Your task to perform on an android device: Open the web browser Image 0: 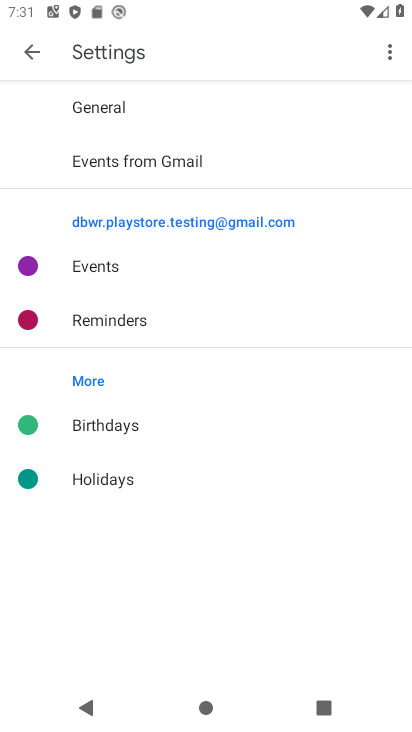
Step 0: click (407, 303)
Your task to perform on an android device: Open the web browser Image 1: 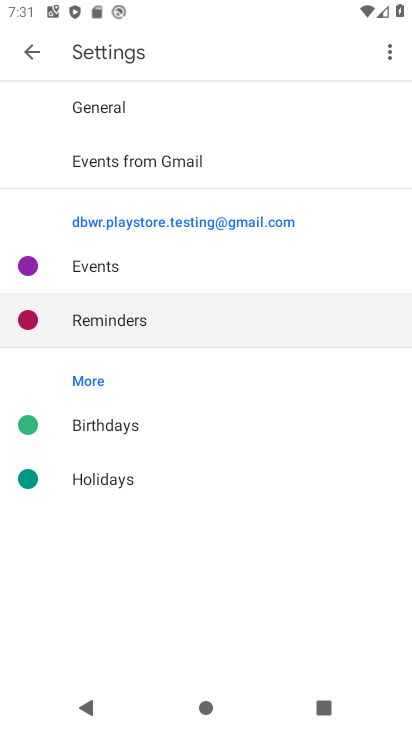
Step 1: press home button
Your task to perform on an android device: Open the web browser Image 2: 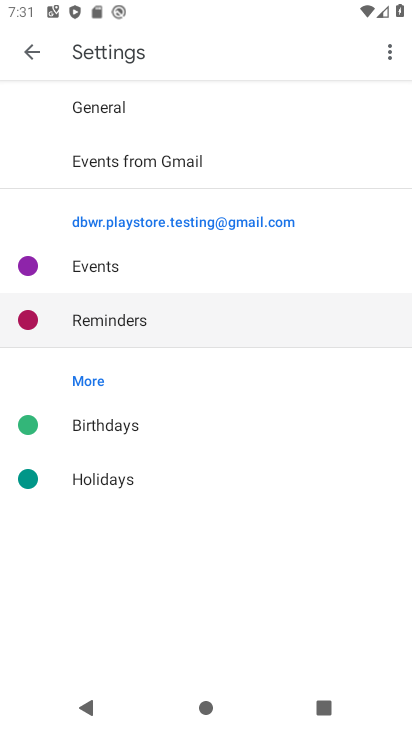
Step 2: drag from (408, 302) to (405, 244)
Your task to perform on an android device: Open the web browser Image 3: 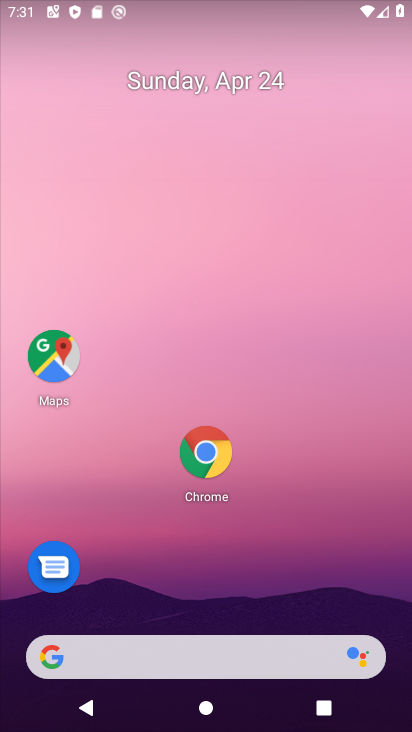
Step 3: click (197, 456)
Your task to perform on an android device: Open the web browser Image 4: 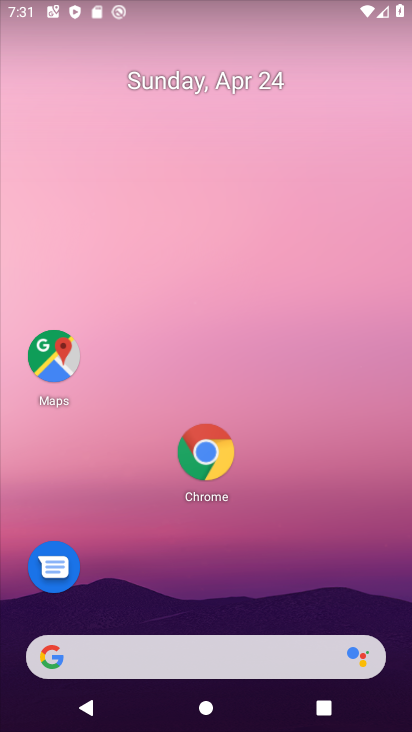
Step 4: click (205, 443)
Your task to perform on an android device: Open the web browser Image 5: 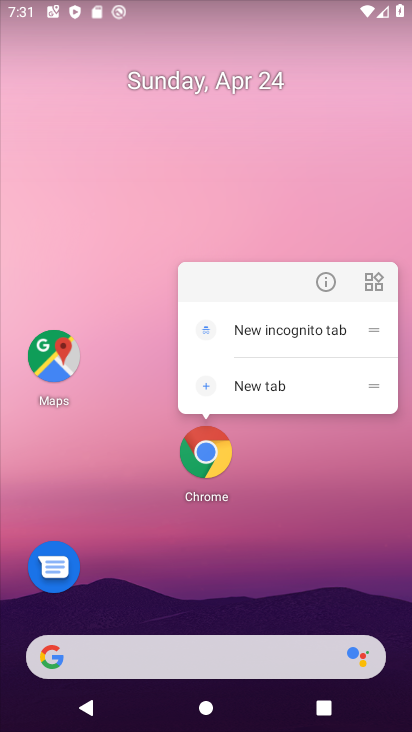
Step 5: click (205, 443)
Your task to perform on an android device: Open the web browser Image 6: 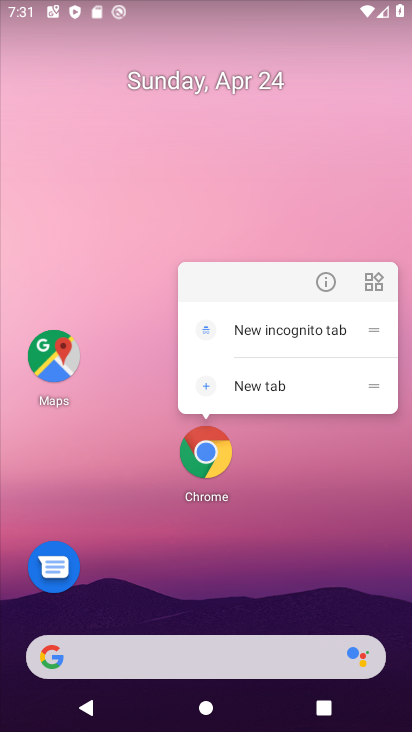
Step 6: click (205, 443)
Your task to perform on an android device: Open the web browser Image 7: 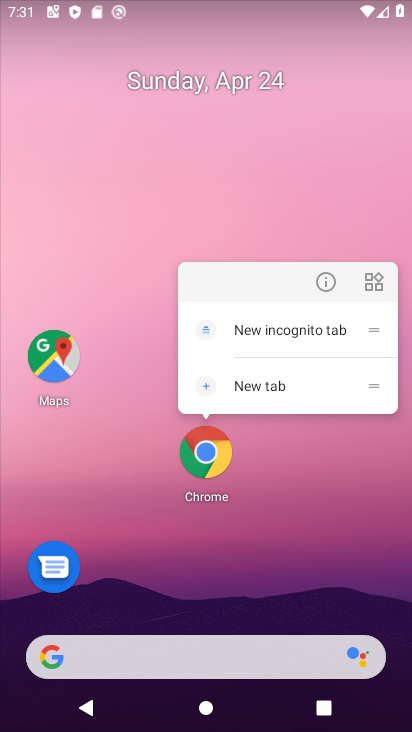
Step 7: click (205, 443)
Your task to perform on an android device: Open the web browser Image 8: 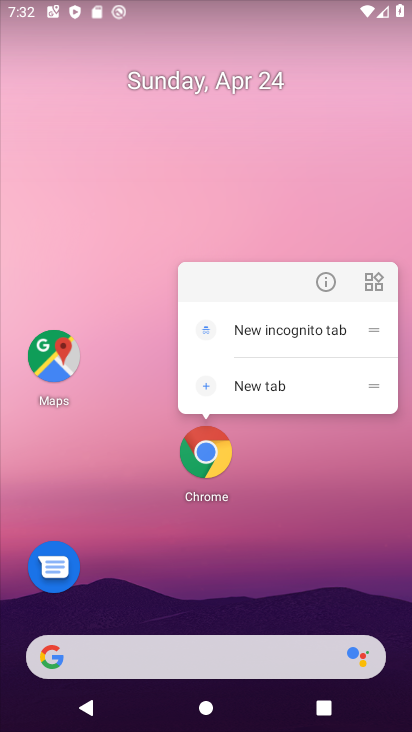
Step 8: click (205, 443)
Your task to perform on an android device: Open the web browser Image 9: 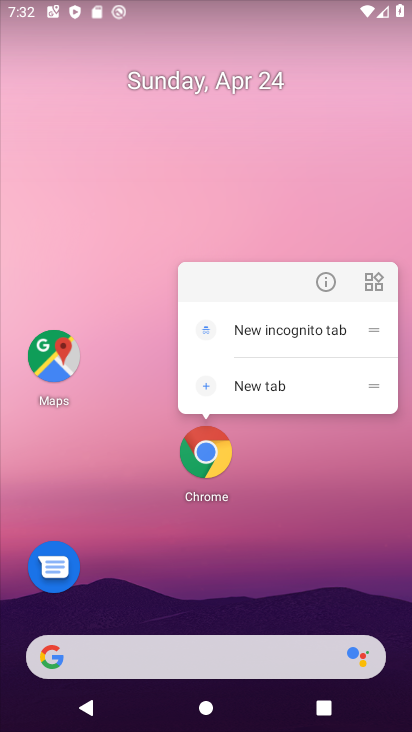
Step 9: click (205, 443)
Your task to perform on an android device: Open the web browser Image 10: 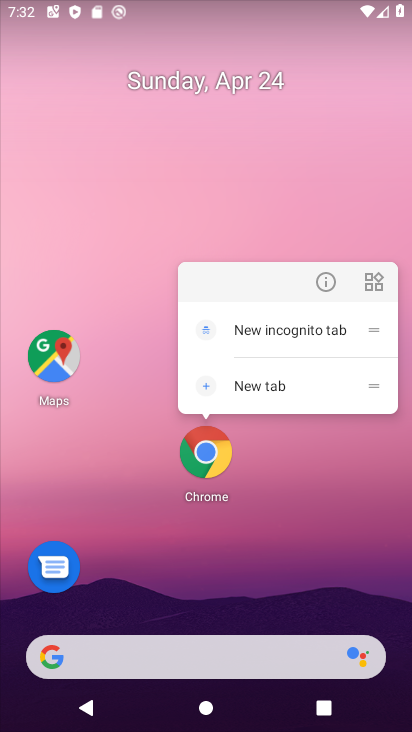
Step 10: click (205, 443)
Your task to perform on an android device: Open the web browser Image 11: 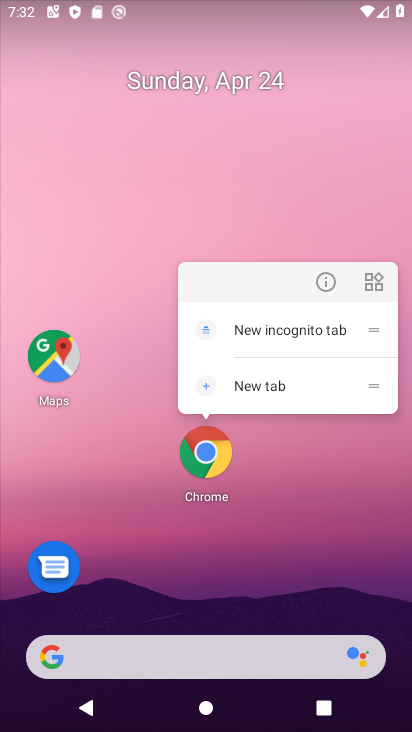
Step 11: click (205, 443)
Your task to perform on an android device: Open the web browser Image 12: 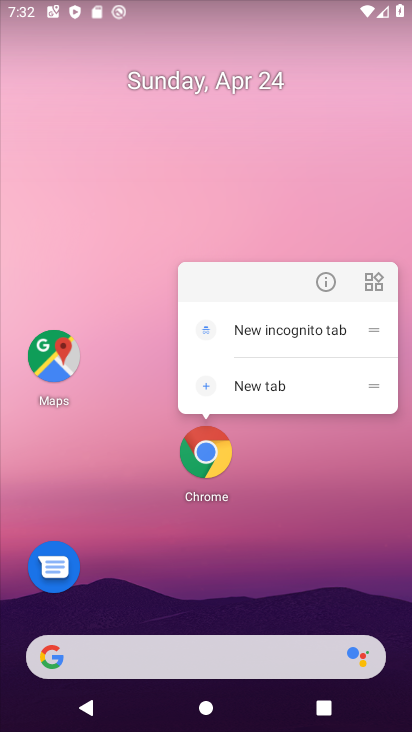
Step 12: click (205, 443)
Your task to perform on an android device: Open the web browser Image 13: 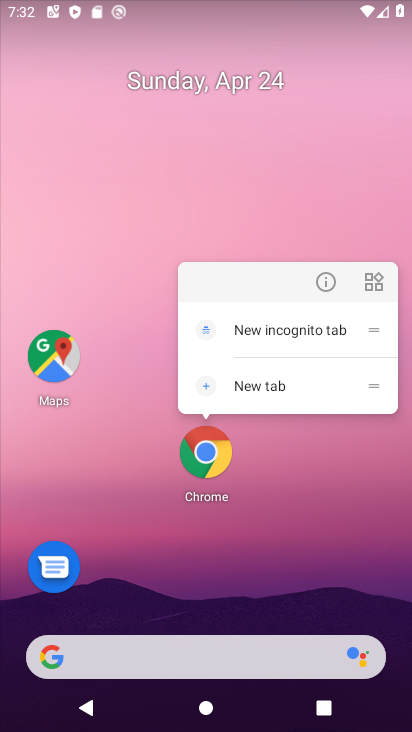
Step 13: click (205, 443)
Your task to perform on an android device: Open the web browser Image 14: 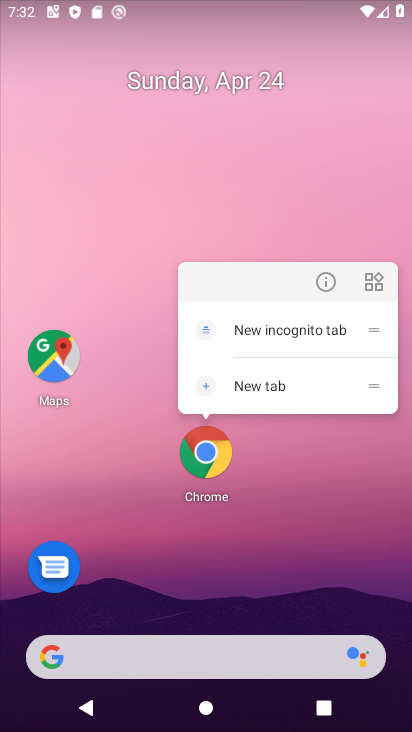
Step 14: click (205, 443)
Your task to perform on an android device: Open the web browser Image 15: 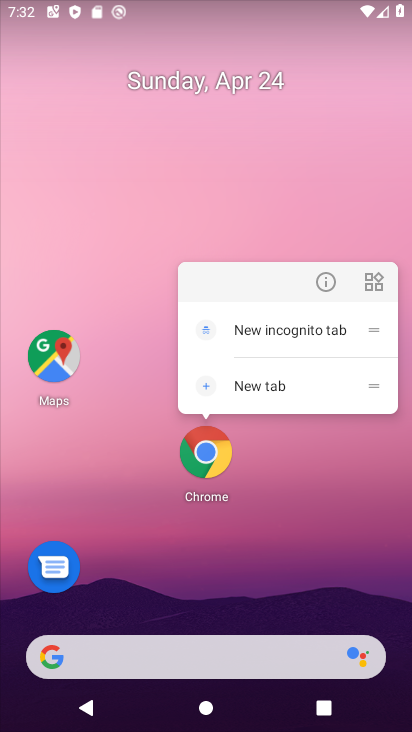
Step 15: click (205, 443)
Your task to perform on an android device: Open the web browser Image 16: 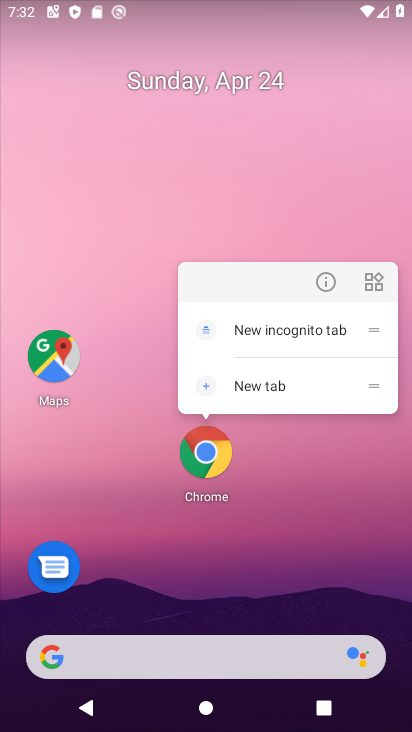
Step 16: click (205, 443)
Your task to perform on an android device: Open the web browser Image 17: 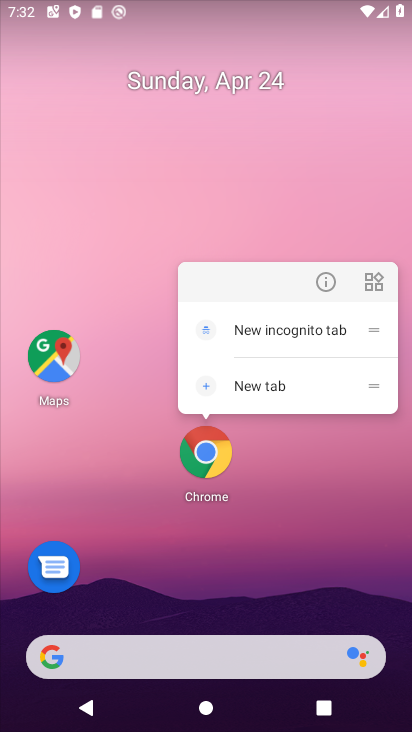
Step 17: click (205, 443)
Your task to perform on an android device: Open the web browser Image 18: 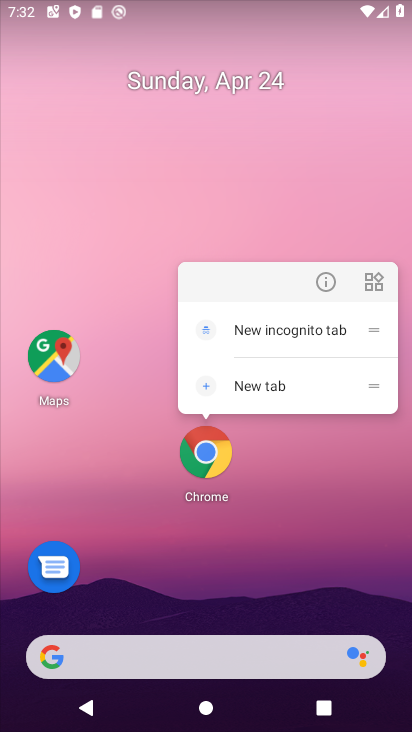
Step 18: click (205, 443)
Your task to perform on an android device: Open the web browser Image 19: 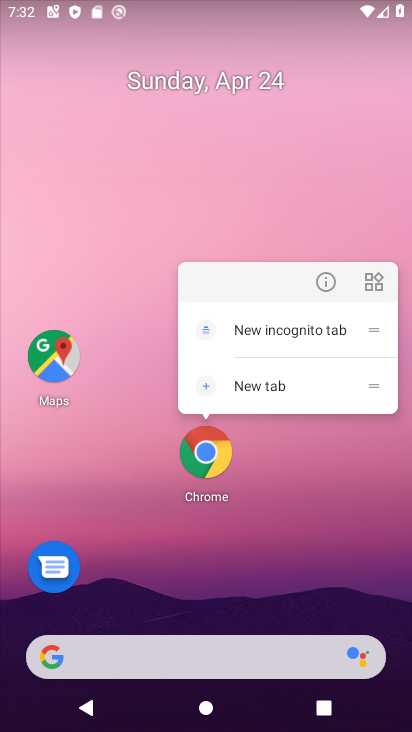
Step 19: click (205, 443)
Your task to perform on an android device: Open the web browser Image 20: 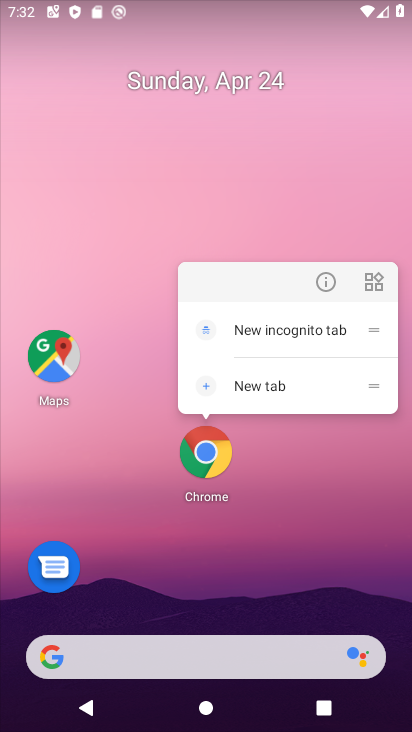
Step 20: click (205, 443)
Your task to perform on an android device: Open the web browser Image 21: 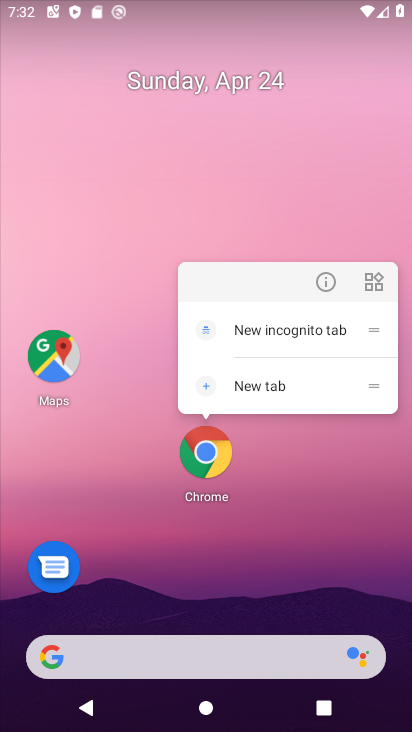
Step 21: click (205, 443)
Your task to perform on an android device: Open the web browser Image 22: 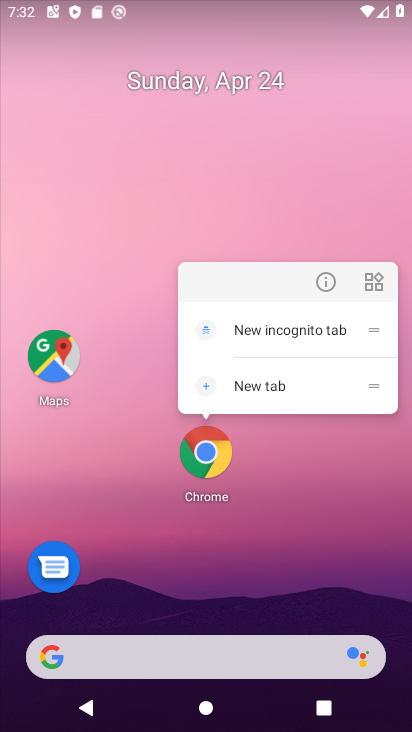
Step 22: click (205, 443)
Your task to perform on an android device: Open the web browser Image 23: 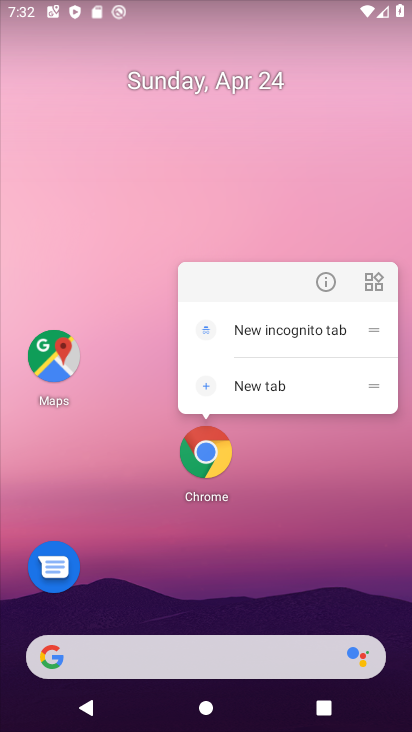
Step 23: click (205, 443)
Your task to perform on an android device: Open the web browser Image 24: 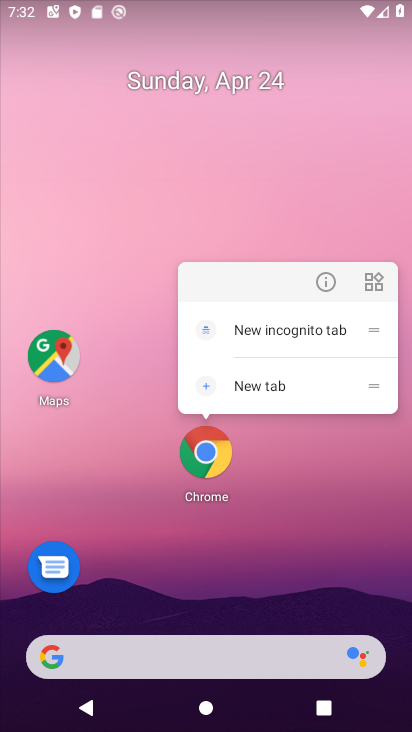
Step 24: click (205, 443)
Your task to perform on an android device: Open the web browser Image 25: 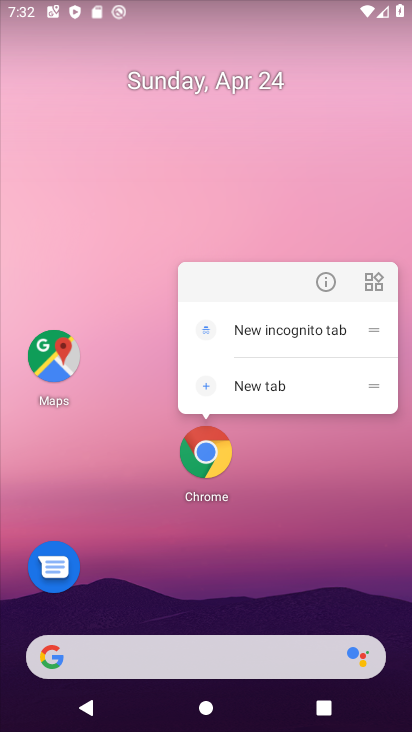
Step 25: click (205, 443)
Your task to perform on an android device: Open the web browser Image 26: 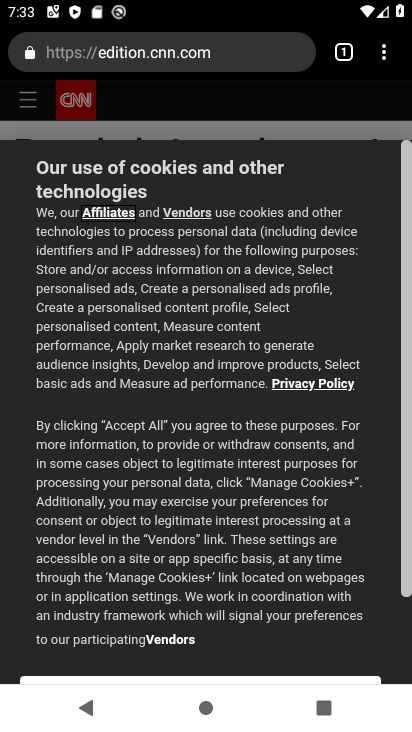
Step 26: task complete